Your task to perform on an android device: allow notifications from all sites in the chrome app Image 0: 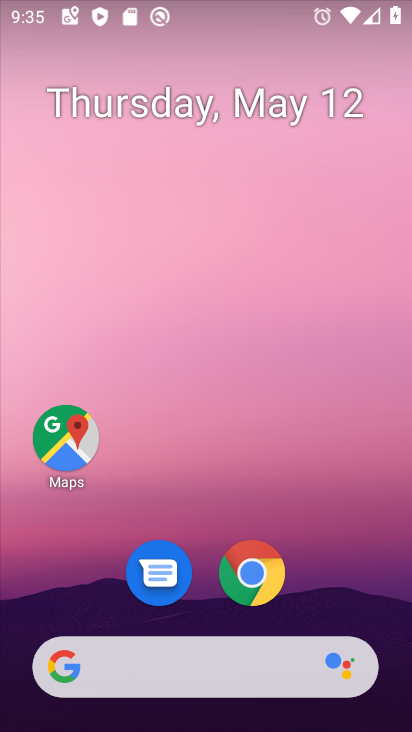
Step 0: press back button
Your task to perform on an android device: allow notifications from all sites in the chrome app Image 1: 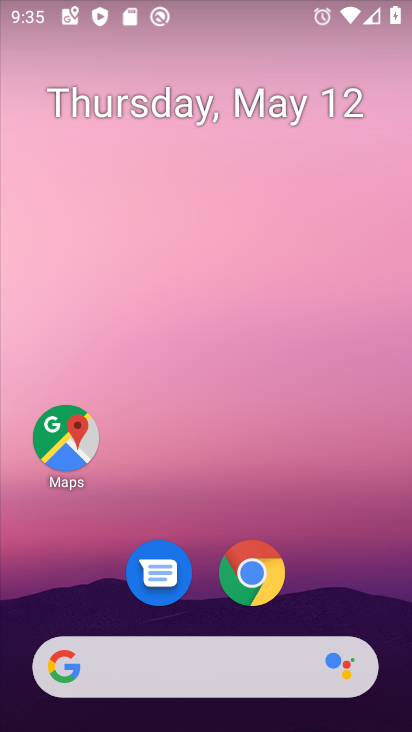
Step 1: click (251, 574)
Your task to perform on an android device: allow notifications from all sites in the chrome app Image 2: 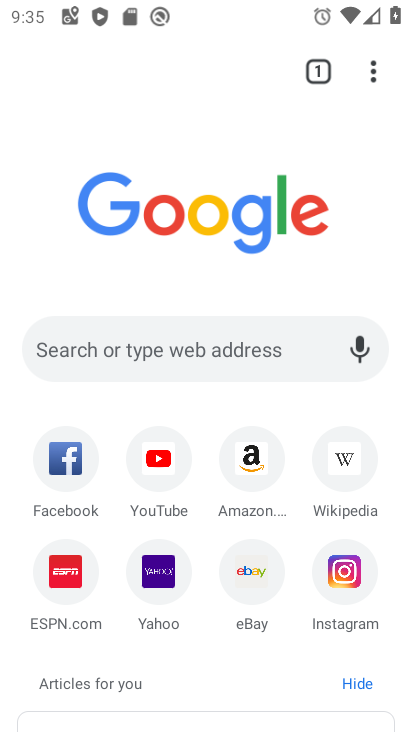
Step 2: click (371, 71)
Your task to perform on an android device: allow notifications from all sites in the chrome app Image 3: 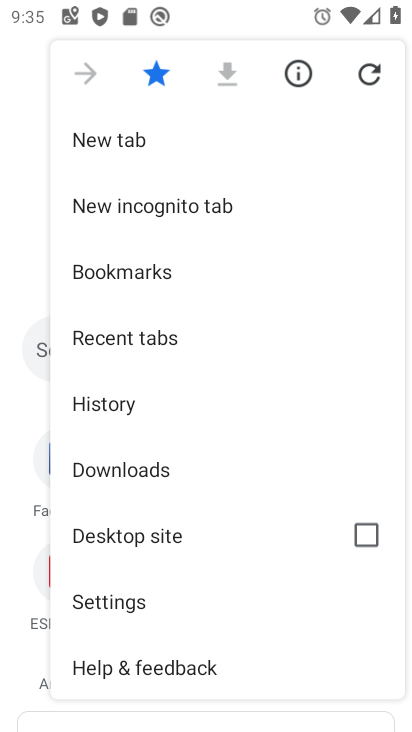
Step 3: click (121, 604)
Your task to perform on an android device: allow notifications from all sites in the chrome app Image 4: 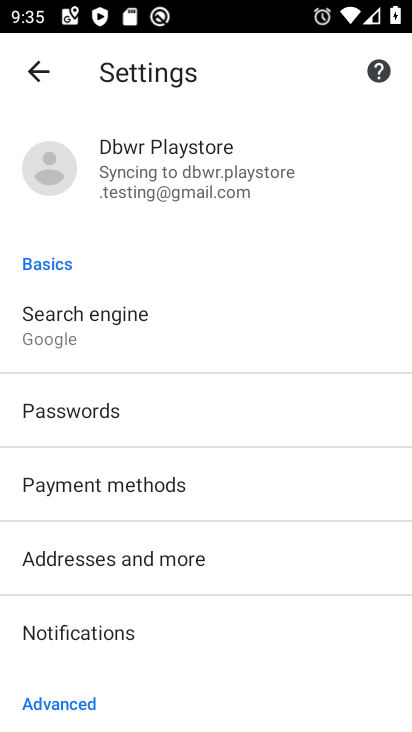
Step 4: drag from (134, 654) to (183, 420)
Your task to perform on an android device: allow notifications from all sites in the chrome app Image 5: 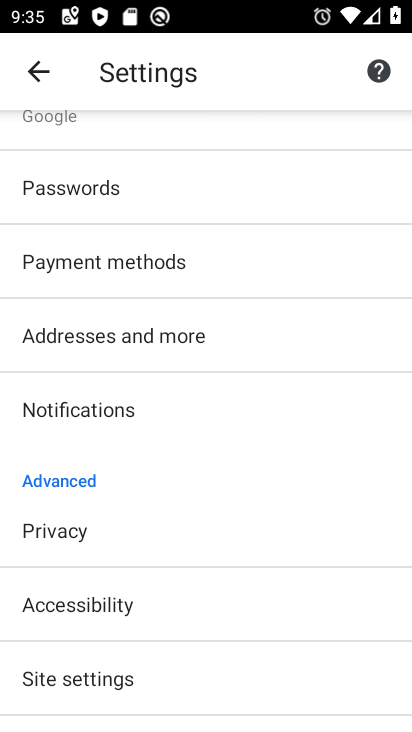
Step 5: click (67, 680)
Your task to perform on an android device: allow notifications from all sites in the chrome app Image 6: 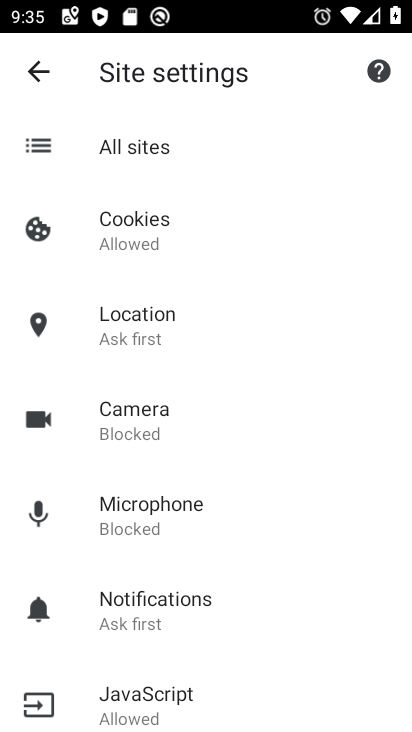
Step 6: drag from (145, 575) to (223, 437)
Your task to perform on an android device: allow notifications from all sites in the chrome app Image 7: 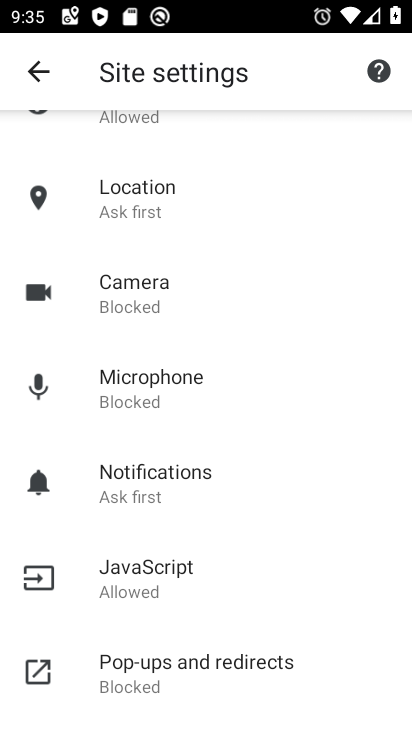
Step 7: drag from (230, 587) to (247, 406)
Your task to perform on an android device: allow notifications from all sites in the chrome app Image 8: 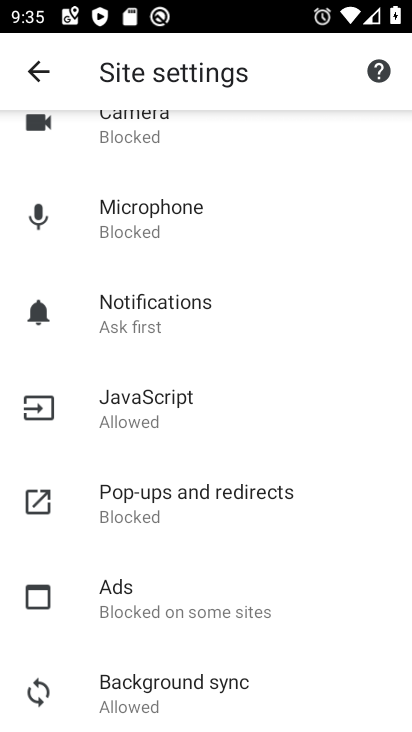
Step 8: drag from (210, 593) to (280, 415)
Your task to perform on an android device: allow notifications from all sites in the chrome app Image 9: 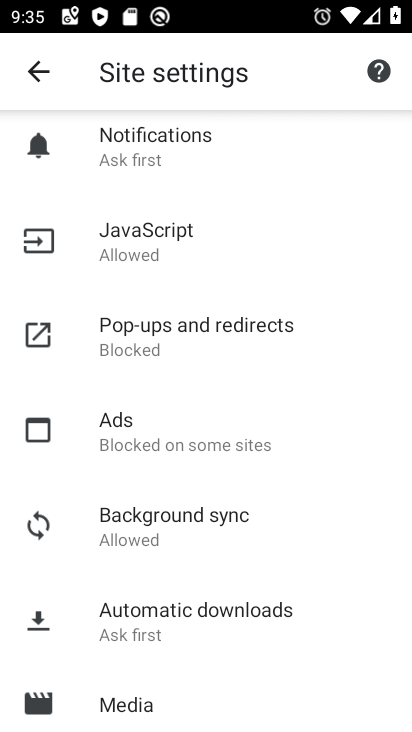
Step 9: drag from (256, 279) to (265, 520)
Your task to perform on an android device: allow notifications from all sites in the chrome app Image 10: 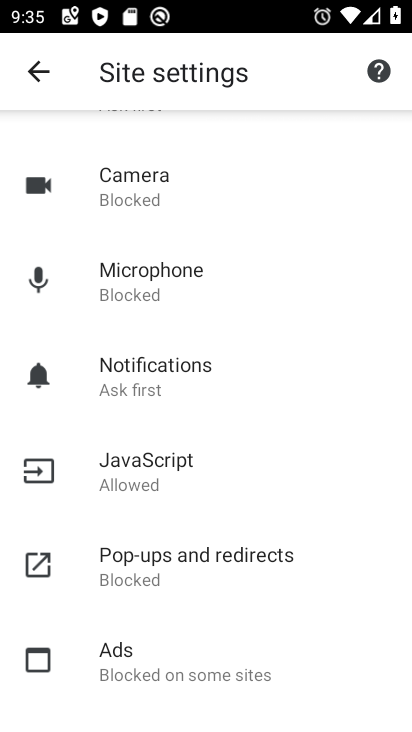
Step 10: drag from (264, 297) to (270, 482)
Your task to perform on an android device: allow notifications from all sites in the chrome app Image 11: 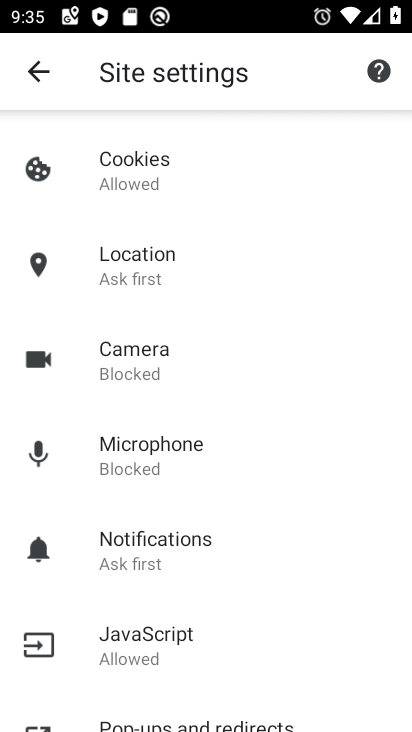
Step 11: drag from (257, 289) to (279, 441)
Your task to perform on an android device: allow notifications from all sites in the chrome app Image 12: 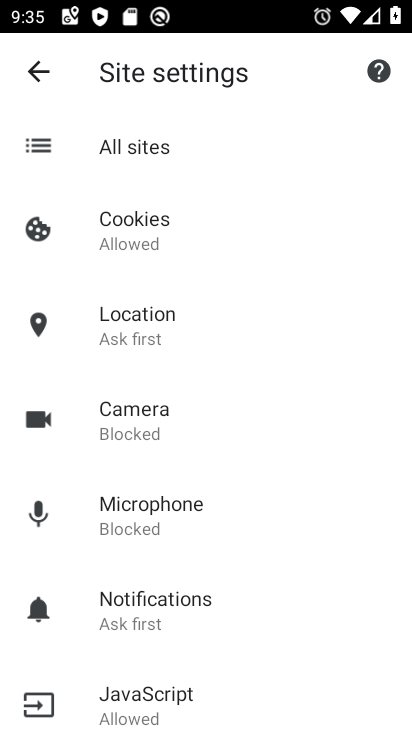
Step 12: click (173, 609)
Your task to perform on an android device: allow notifications from all sites in the chrome app Image 13: 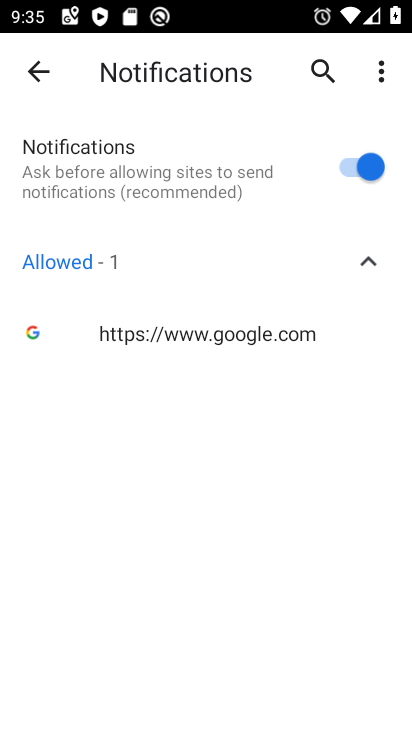
Step 13: task complete